Your task to perform on an android device: open a bookmark in the chrome app Image 0: 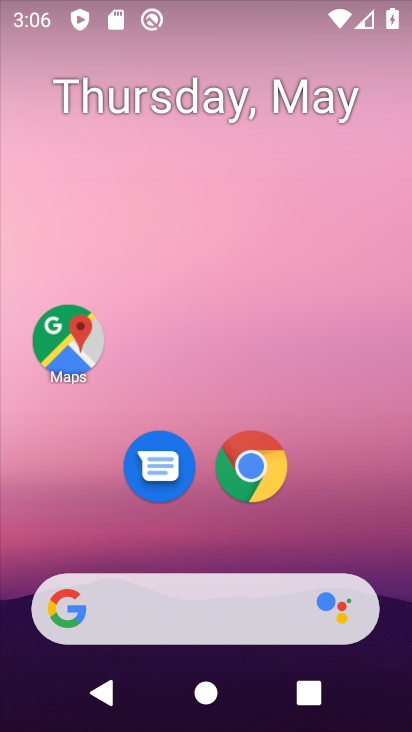
Step 0: click (249, 490)
Your task to perform on an android device: open a bookmark in the chrome app Image 1: 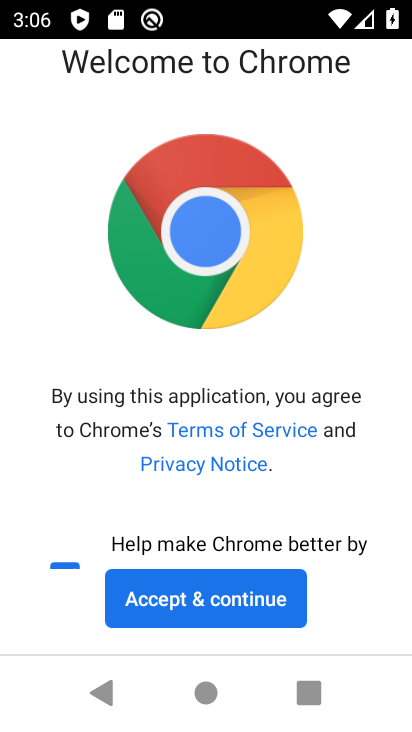
Step 1: click (225, 586)
Your task to perform on an android device: open a bookmark in the chrome app Image 2: 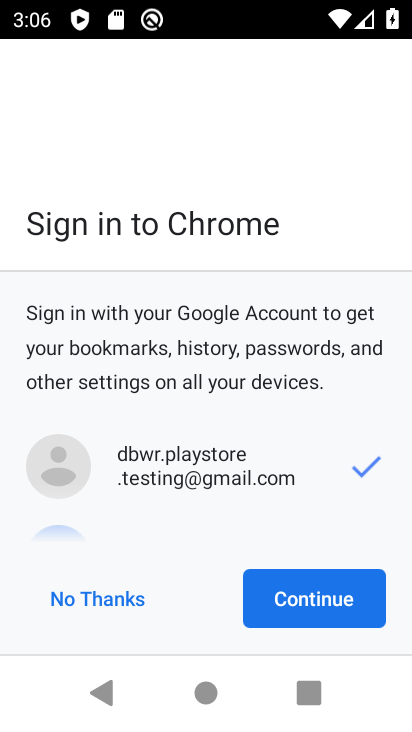
Step 2: click (346, 603)
Your task to perform on an android device: open a bookmark in the chrome app Image 3: 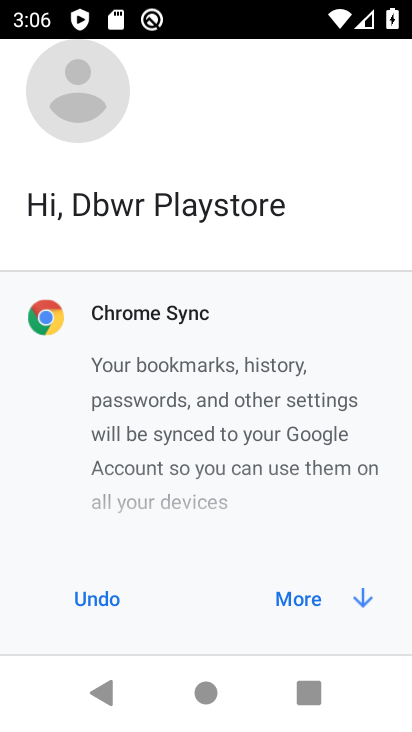
Step 3: click (328, 601)
Your task to perform on an android device: open a bookmark in the chrome app Image 4: 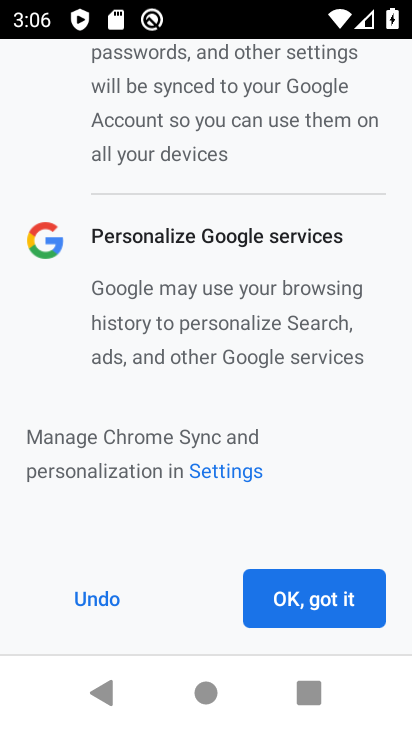
Step 4: click (328, 601)
Your task to perform on an android device: open a bookmark in the chrome app Image 5: 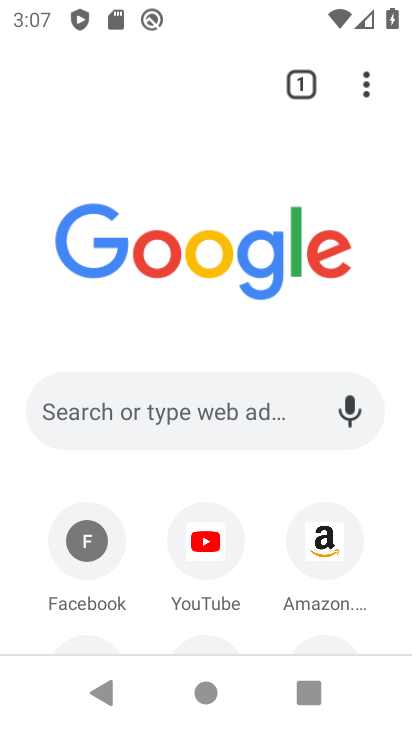
Step 5: click (379, 76)
Your task to perform on an android device: open a bookmark in the chrome app Image 6: 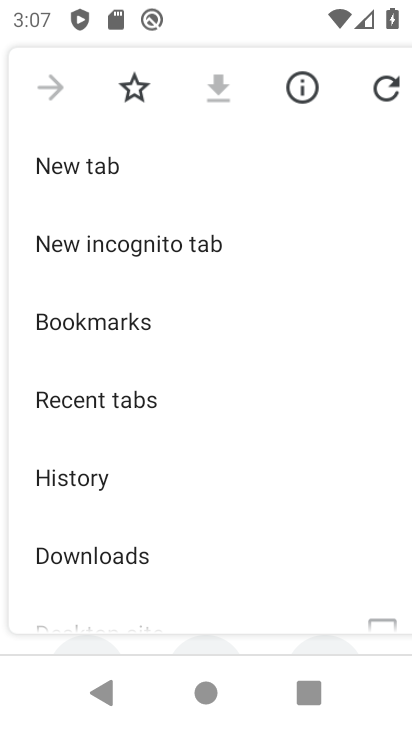
Step 6: click (213, 325)
Your task to perform on an android device: open a bookmark in the chrome app Image 7: 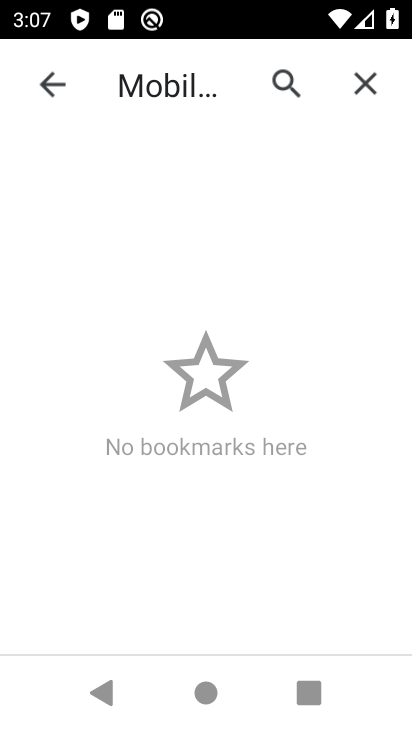
Step 7: task complete